Your task to perform on an android device: turn off picture-in-picture Image 0: 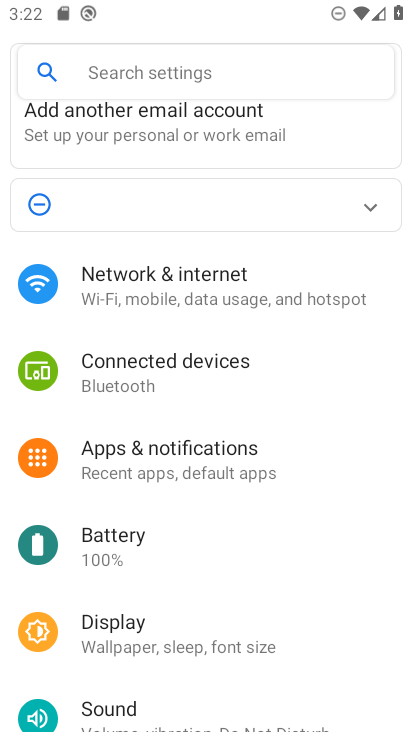
Step 0: press home button
Your task to perform on an android device: turn off picture-in-picture Image 1: 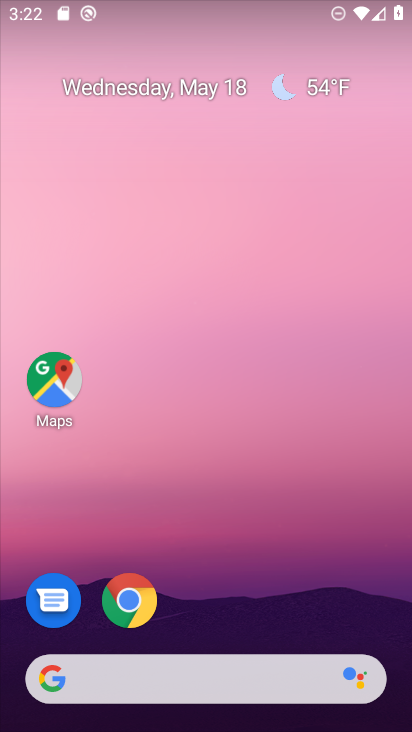
Step 1: click (138, 605)
Your task to perform on an android device: turn off picture-in-picture Image 2: 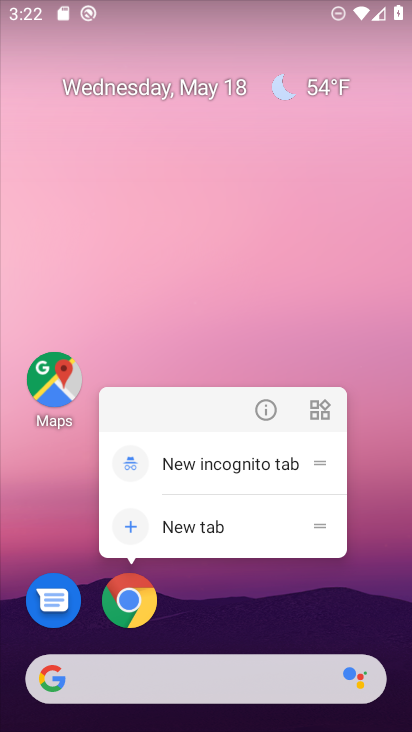
Step 2: click (268, 416)
Your task to perform on an android device: turn off picture-in-picture Image 3: 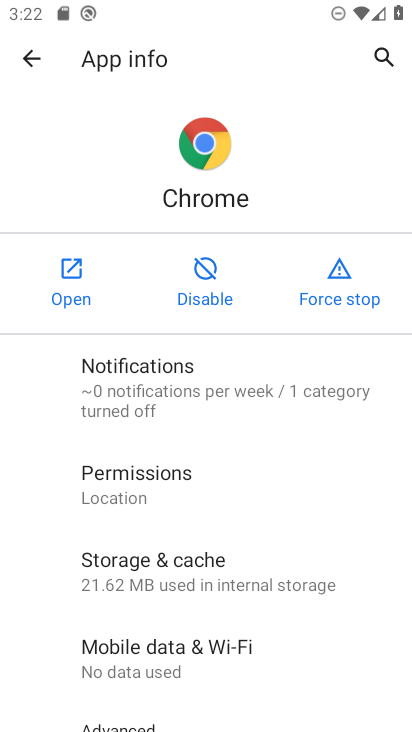
Step 3: drag from (138, 527) to (241, 177)
Your task to perform on an android device: turn off picture-in-picture Image 4: 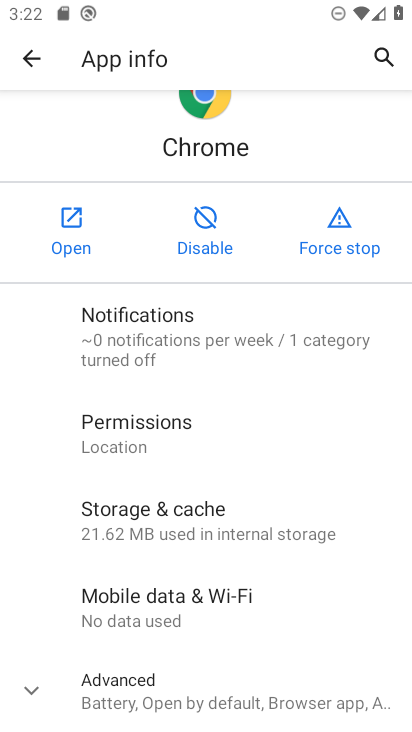
Step 4: click (132, 683)
Your task to perform on an android device: turn off picture-in-picture Image 5: 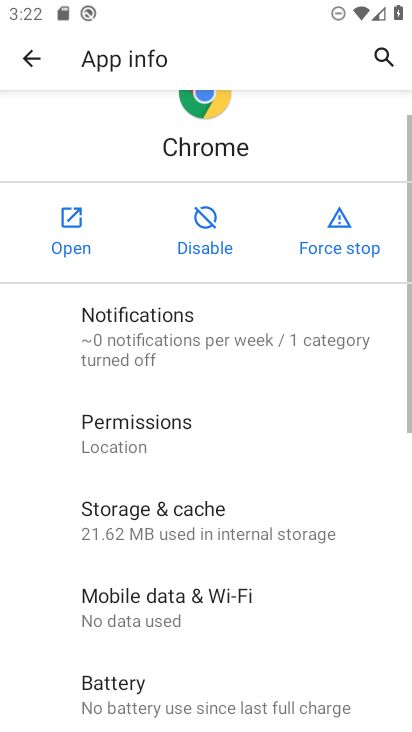
Step 5: drag from (174, 701) to (236, 339)
Your task to perform on an android device: turn off picture-in-picture Image 6: 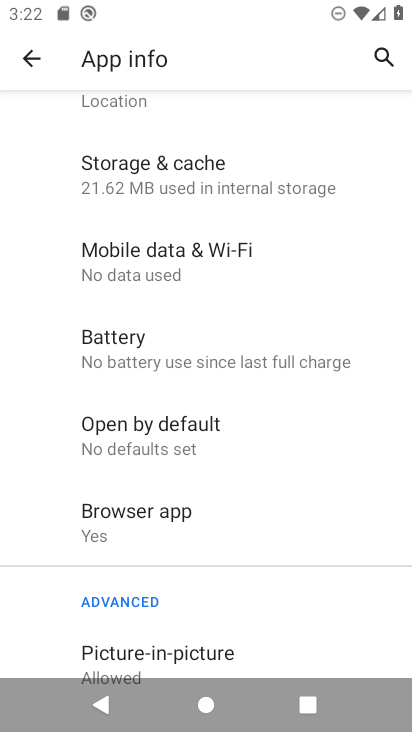
Step 6: drag from (192, 600) to (237, 381)
Your task to perform on an android device: turn off picture-in-picture Image 7: 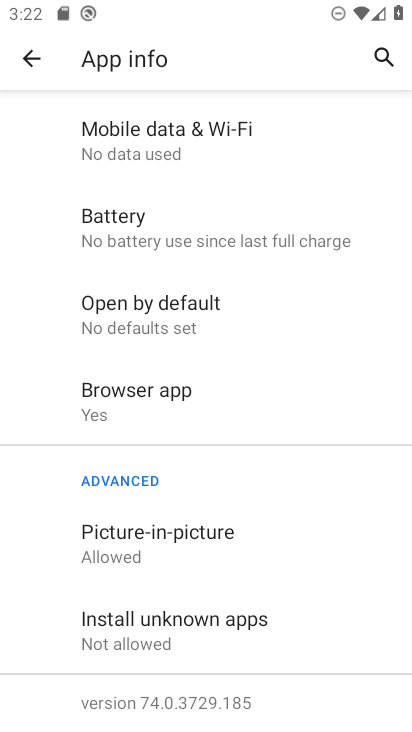
Step 7: click (159, 543)
Your task to perform on an android device: turn off picture-in-picture Image 8: 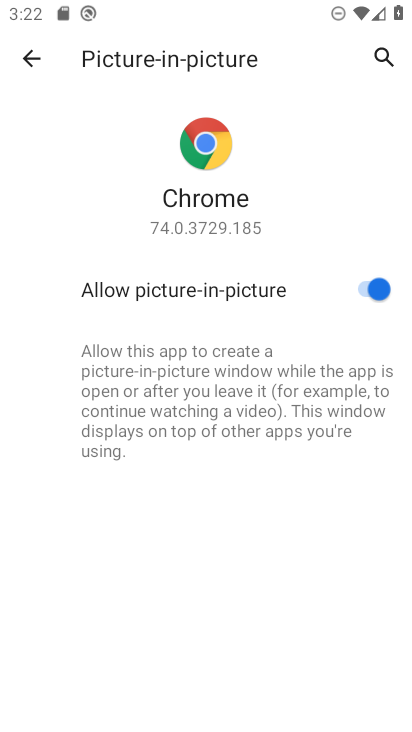
Step 8: click (330, 289)
Your task to perform on an android device: turn off picture-in-picture Image 9: 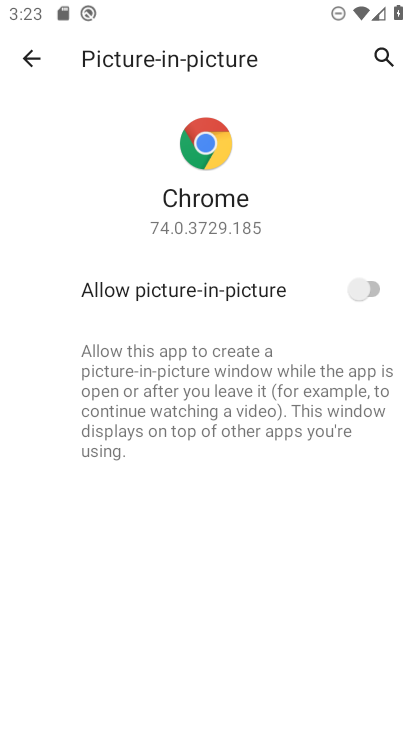
Step 9: task complete